Your task to perform on an android device: Go to privacy settings Image 0: 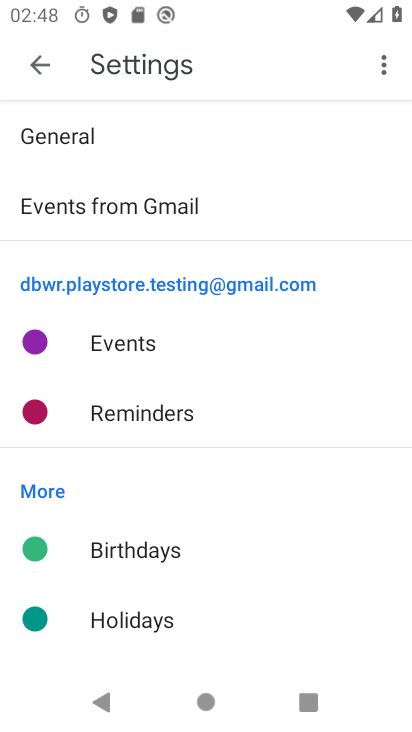
Step 0: drag from (254, 595) to (249, 100)
Your task to perform on an android device: Go to privacy settings Image 1: 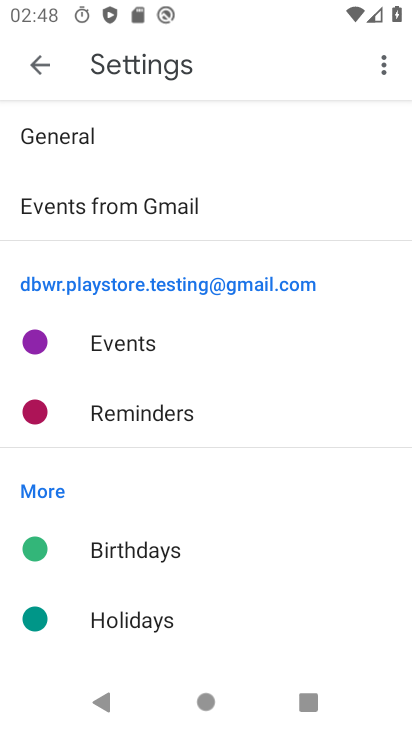
Step 1: press home button
Your task to perform on an android device: Go to privacy settings Image 2: 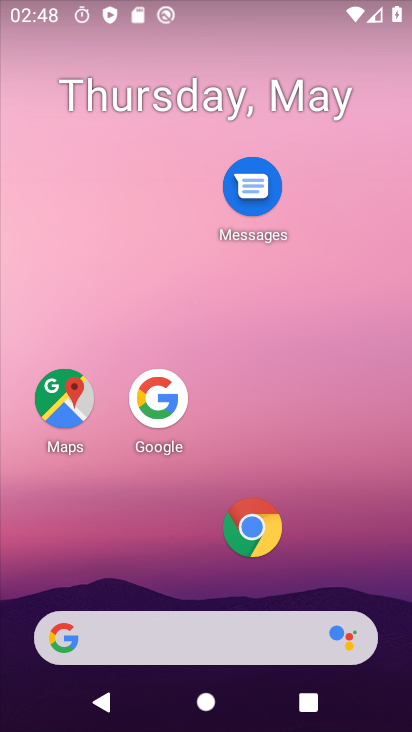
Step 2: drag from (184, 610) to (261, 196)
Your task to perform on an android device: Go to privacy settings Image 3: 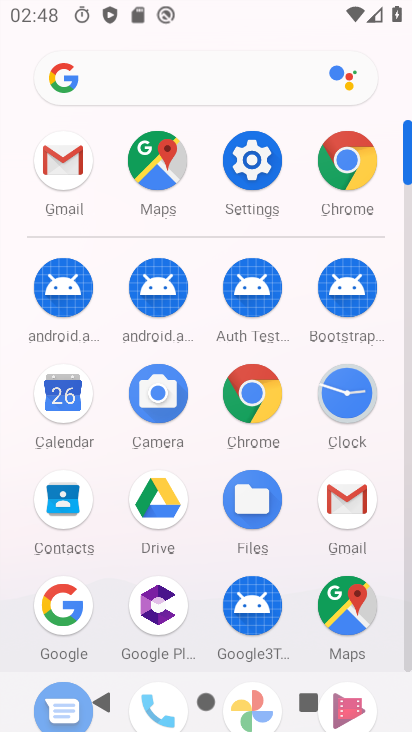
Step 3: drag from (197, 597) to (218, 323)
Your task to perform on an android device: Go to privacy settings Image 4: 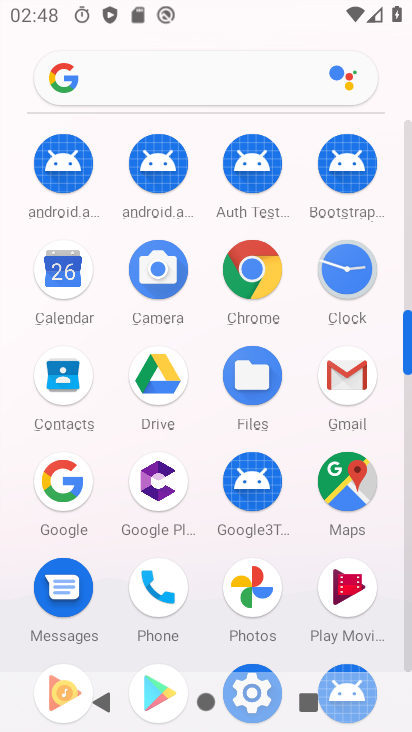
Step 4: drag from (223, 629) to (274, 271)
Your task to perform on an android device: Go to privacy settings Image 5: 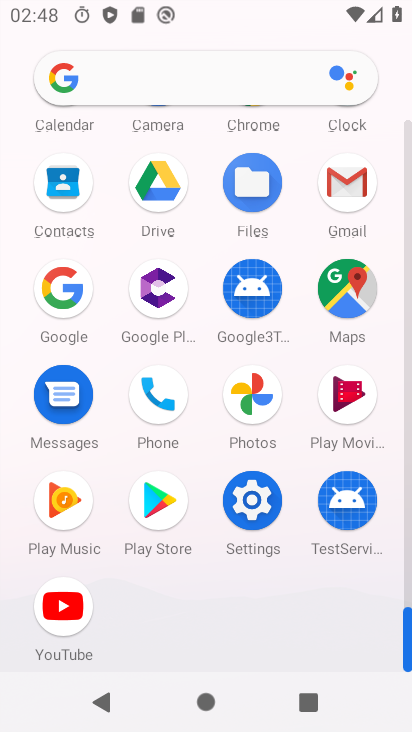
Step 5: click (255, 510)
Your task to perform on an android device: Go to privacy settings Image 6: 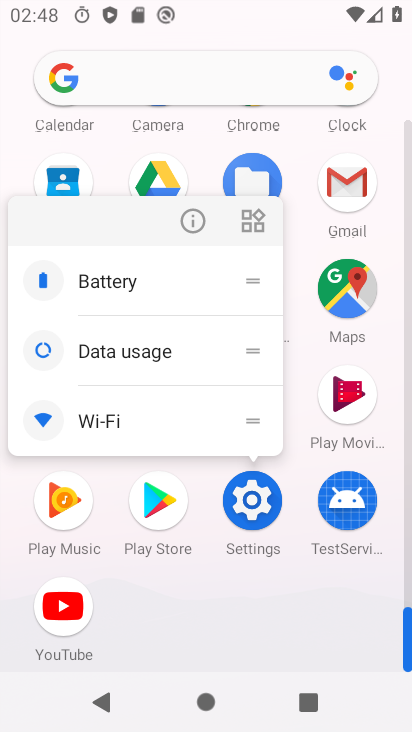
Step 6: click (183, 228)
Your task to perform on an android device: Go to privacy settings Image 7: 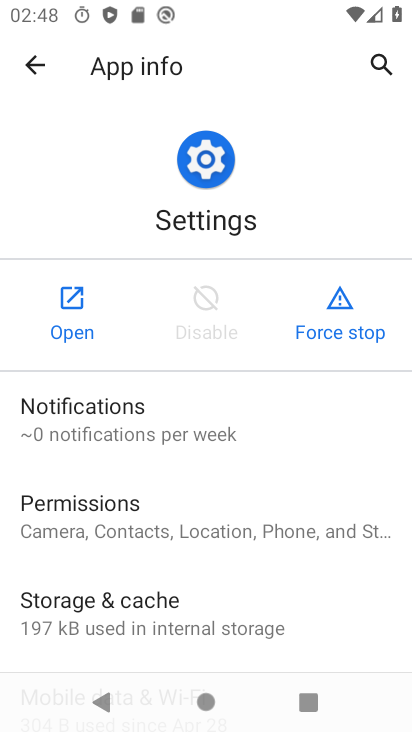
Step 7: click (57, 303)
Your task to perform on an android device: Go to privacy settings Image 8: 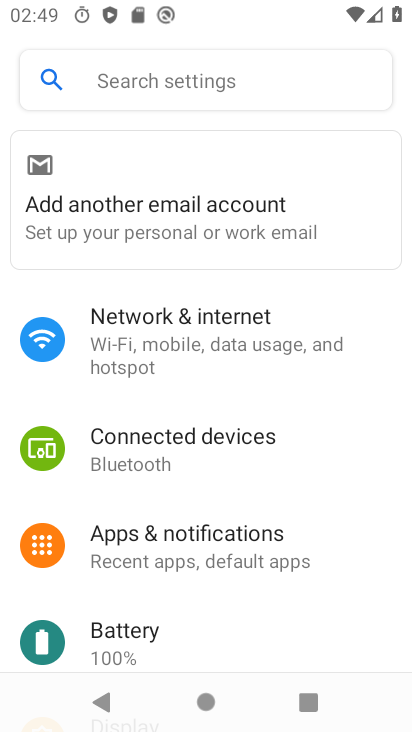
Step 8: drag from (216, 606) to (325, 85)
Your task to perform on an android device: Go to privacy settings Image 9: 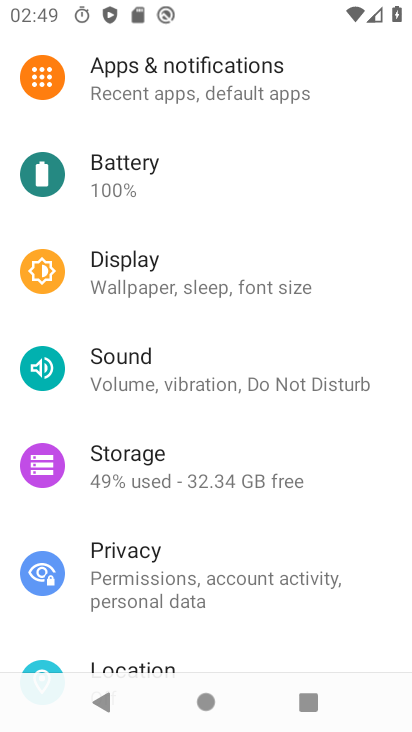
Step 9: click (163, 563)
Your task to perform on an android device: Go to privacy settings Image 10: 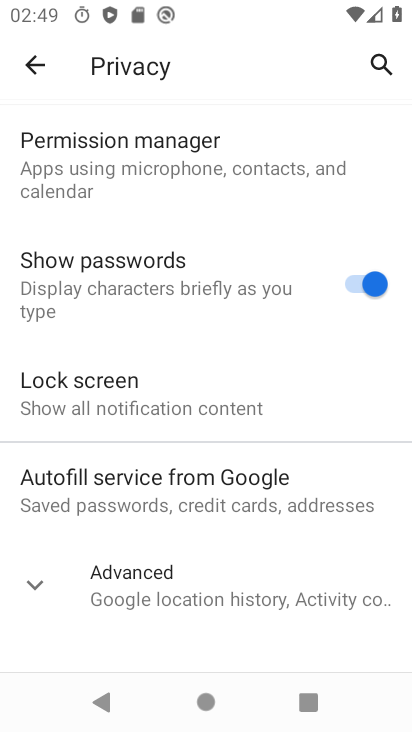
Step 10: task complete